Your task to perform on an android device: toggle pop-ups in chrome Image 0: 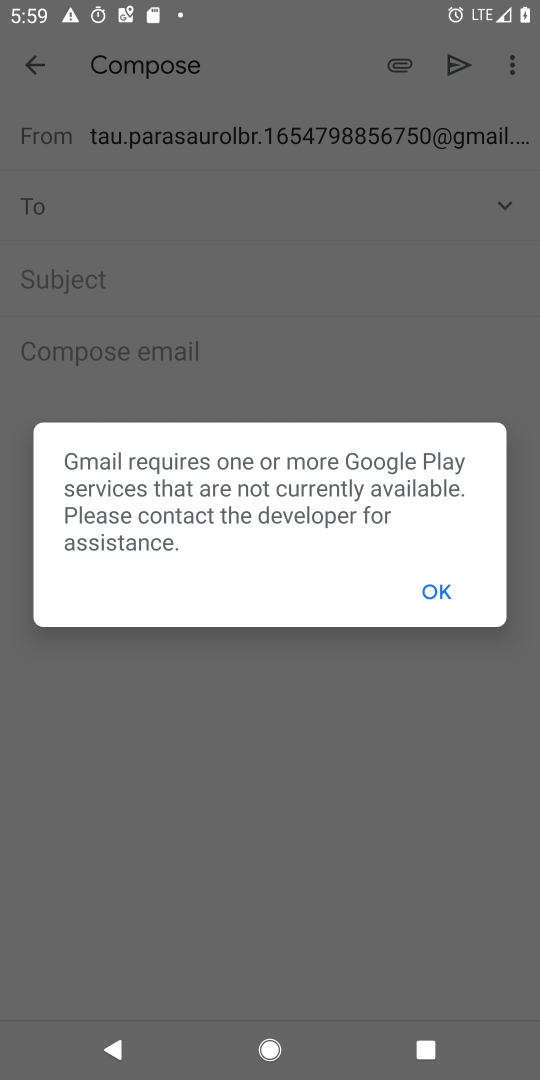
Step 0: press back button
Your task to perform on an android device: toggle pop-ups in chrome Image 1: 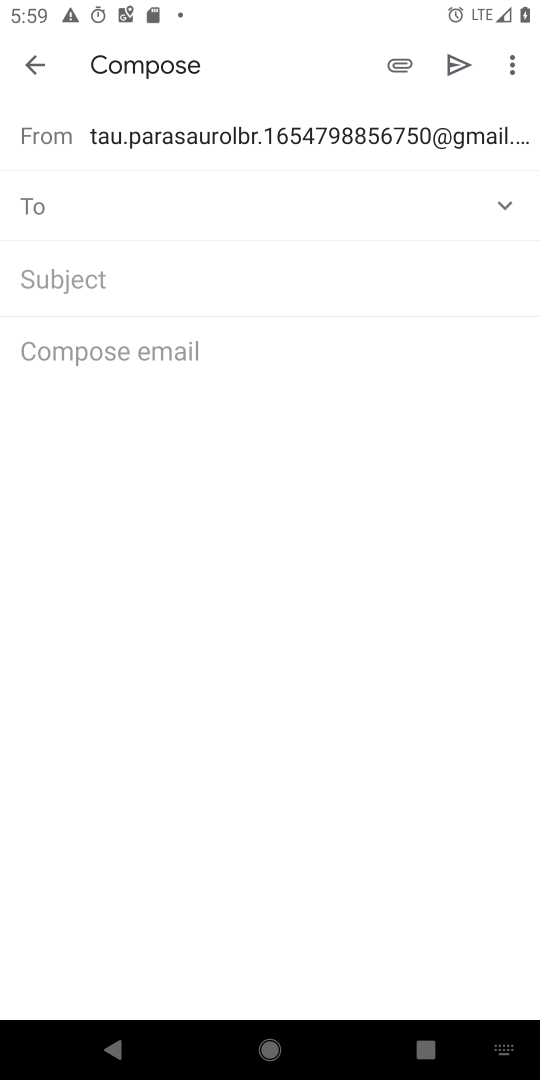
Step 1: press back button
Your task to perform on an android device: toggle pop-ups in chrome Image 2: 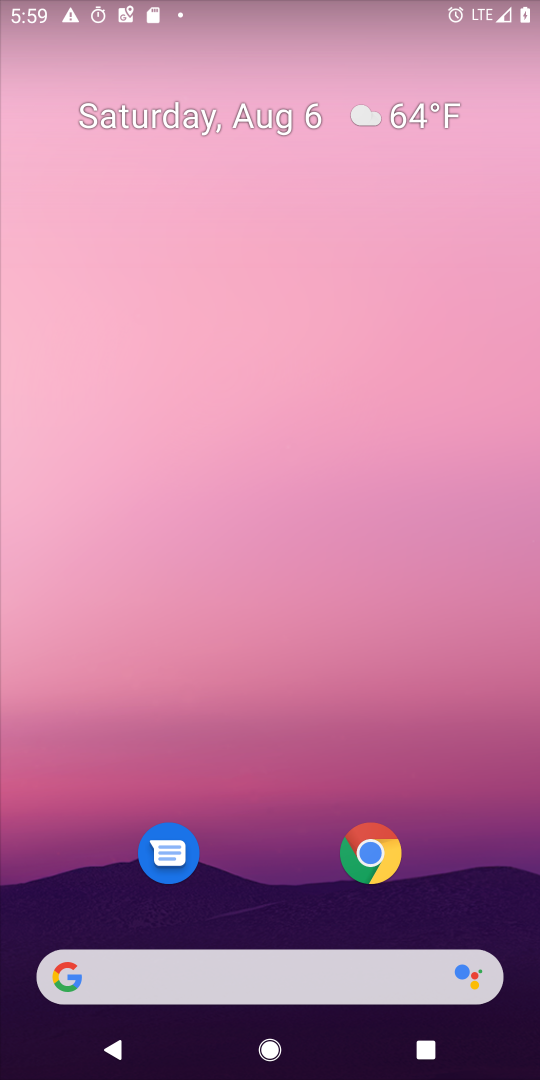
Step 2: click (380, 861)
Your task to perform on an android device: toggle pop-ups in chrome Image 3: 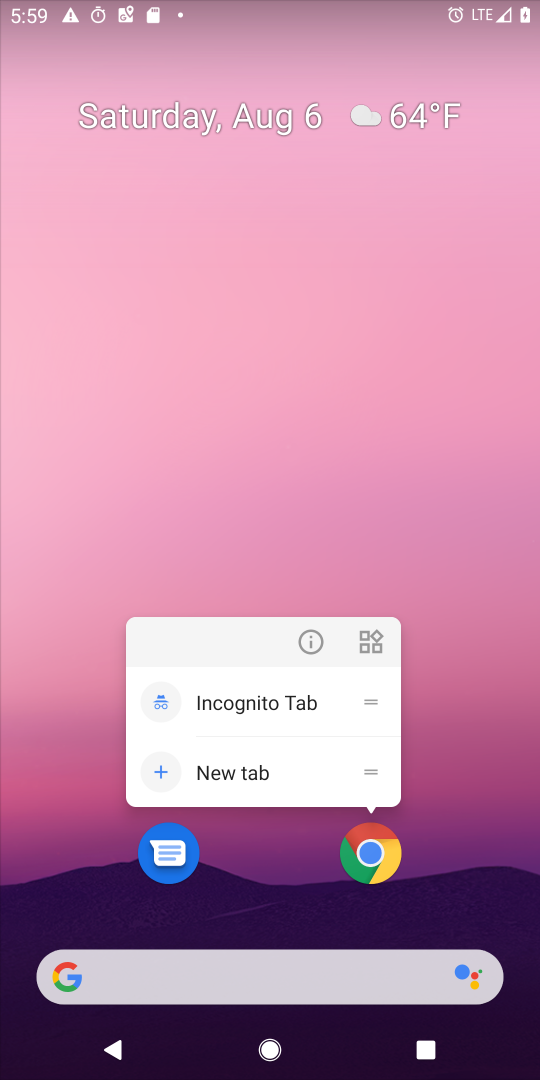
Step 3: click (372, 873)
Your task to perform on an android device: toggle pop-ups in chrome Image 4: 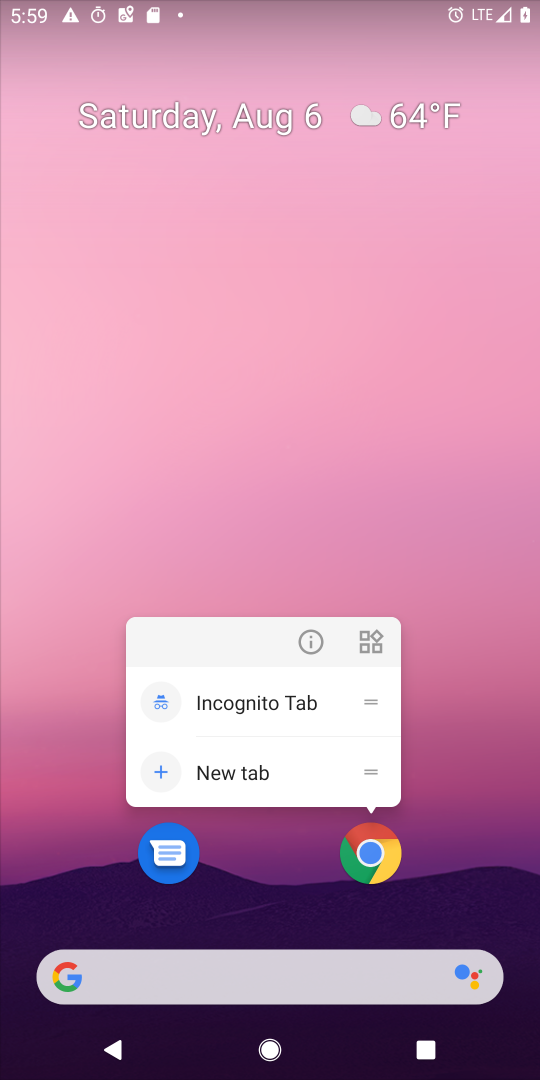
Step 4: click (376, 814)
Your task to perform on an android device: toggle pop-ups in chrome Image 5: 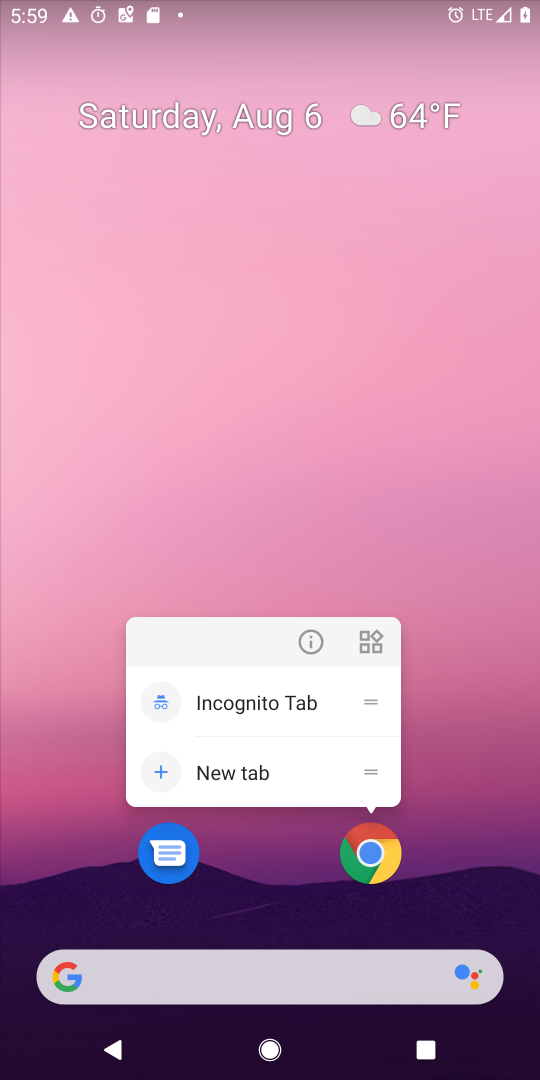
Step 5: click (370, 854)
Your task to perform on an android device: toggle pop-ups in chrome Image 6: 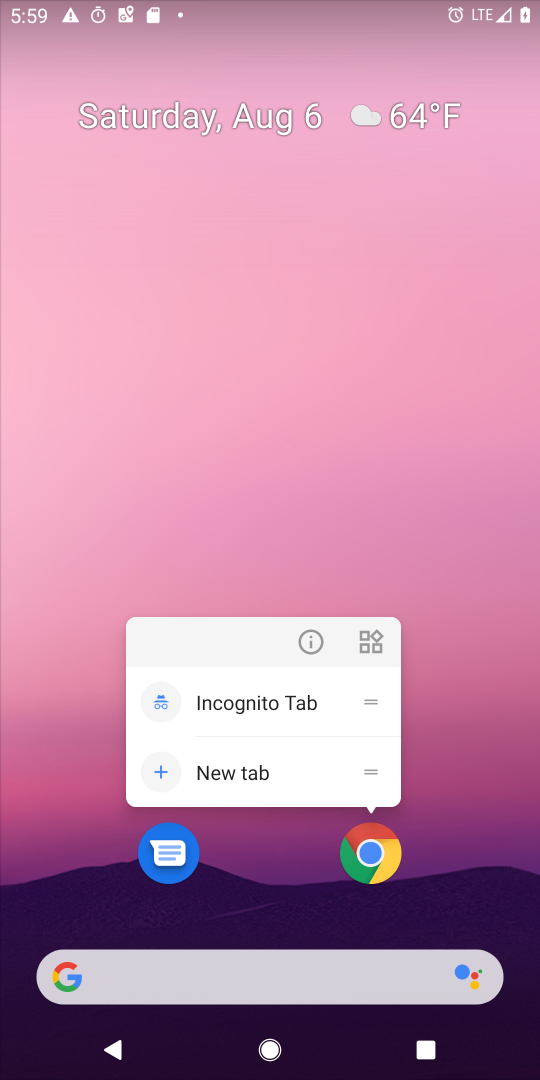
Step 6: click (375, 853)
Your task to perform on an android device: toggle pop-ups in chrome Image 7: 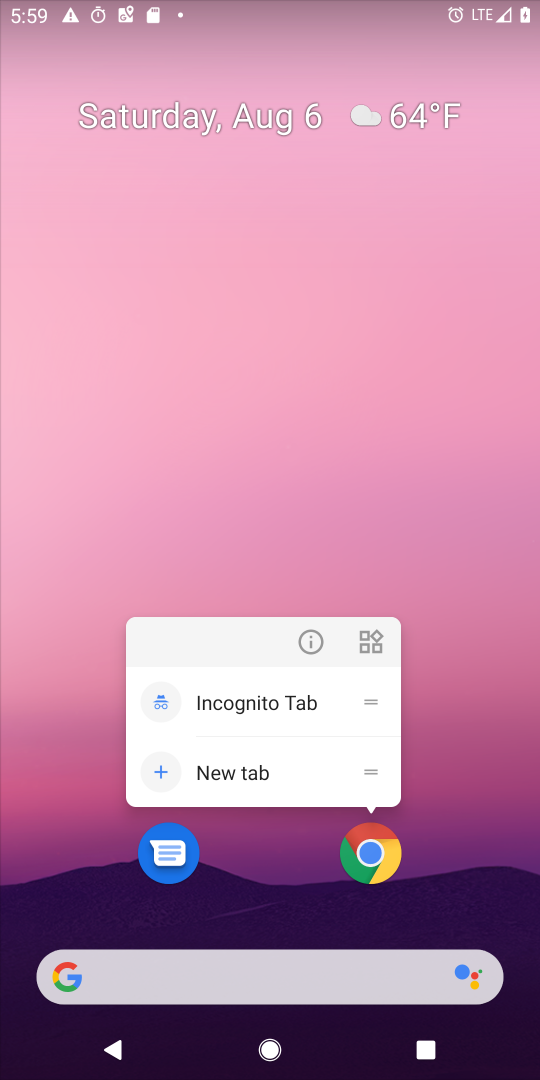
Step 7: click (372, 858)
Your task to perform on an android device: toggle pop-ups in chrome Image 8: 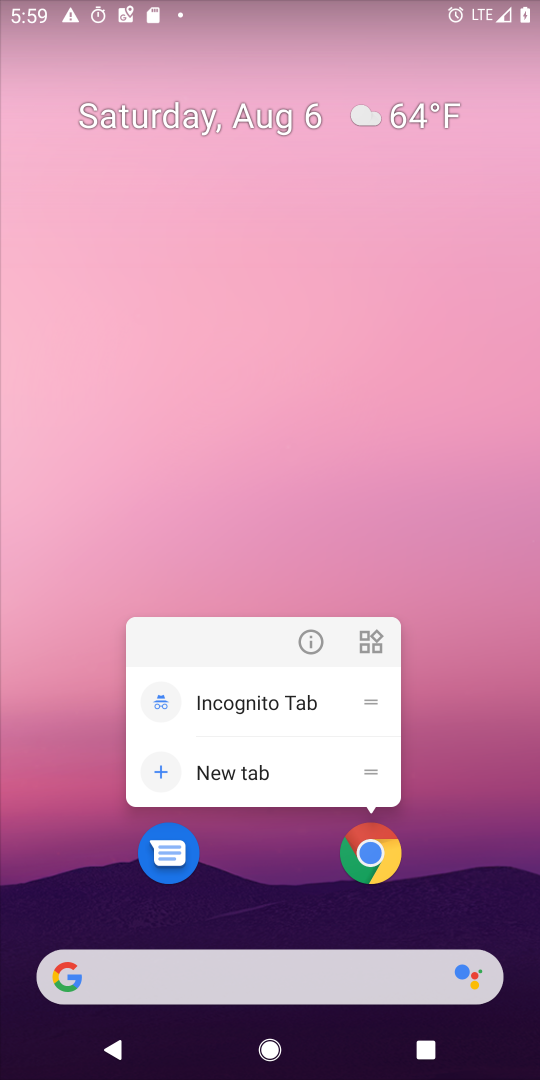
Step 8: click (372, 847)
Your task to perform on an android device: toggle pop-ups in chrome Image 9: 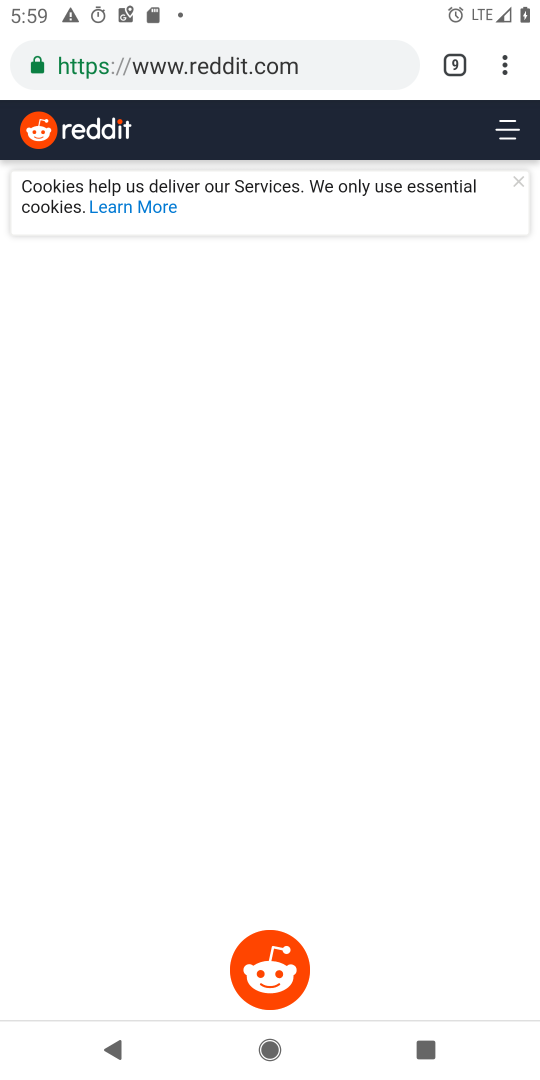
Step 9: drag from (506, 71) to (304, 783)
Your task to perform on an android device: toggle pop-ups in chrome Image 10: 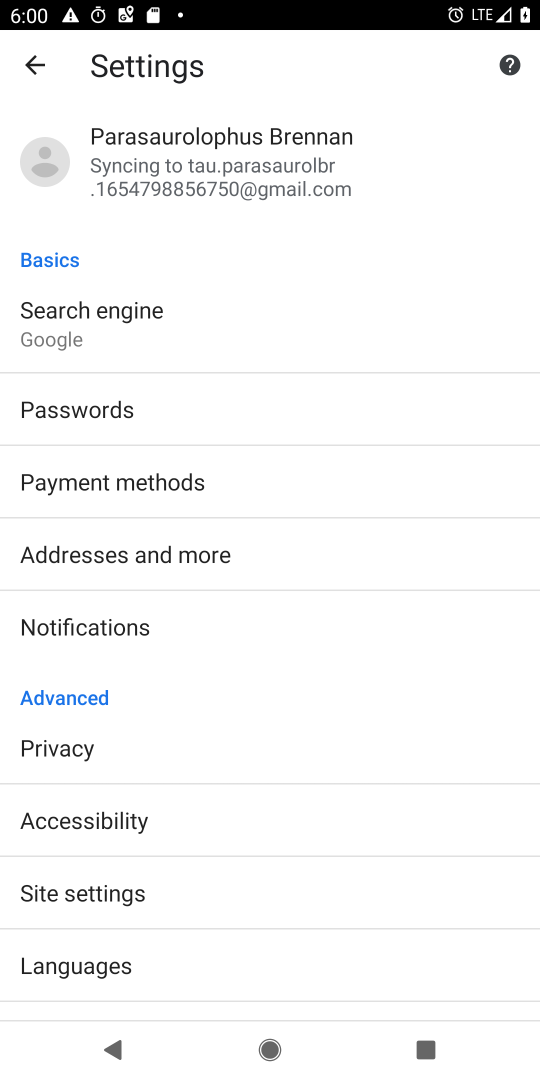
Step 10: click (78, 899)
Your task to perform on an android device: toggle pop-ups in chrome Image 11: 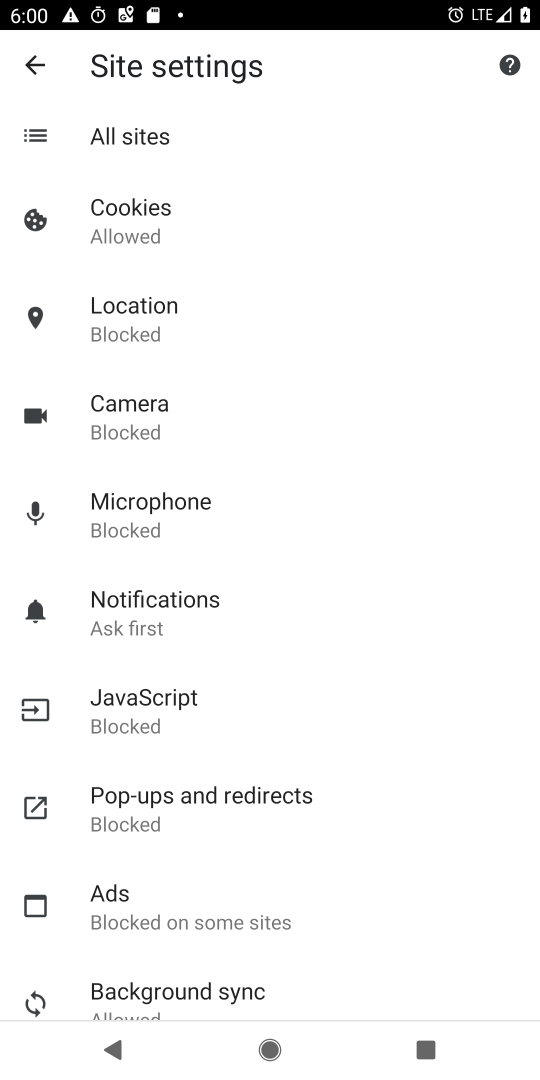
Step 11: click (152, 798)
Your task to perform on an android device: toggle pop-ups in chrome Image 12: 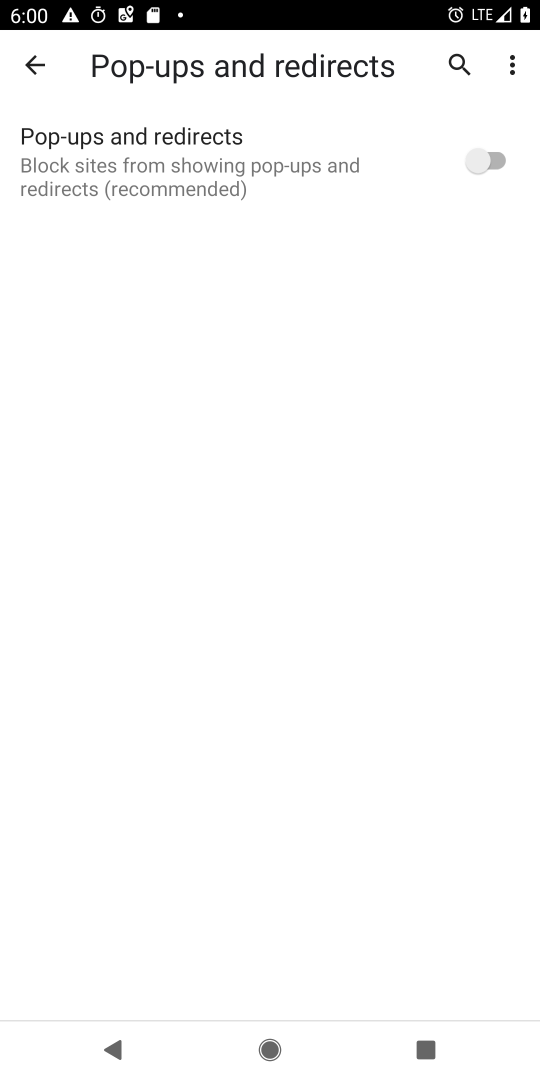
Step 12: click (480, 161)
Your task to perform on an android device: toggle pop-ups in chrome Image 13: 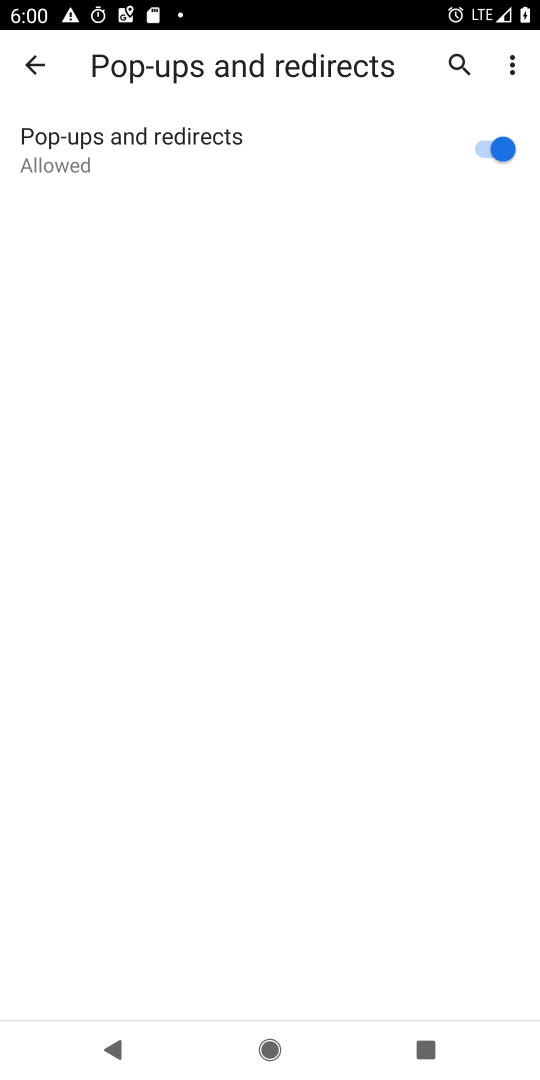
Step 13: task complete